Your task to perform on an android device: Go to Amazon Image 0: 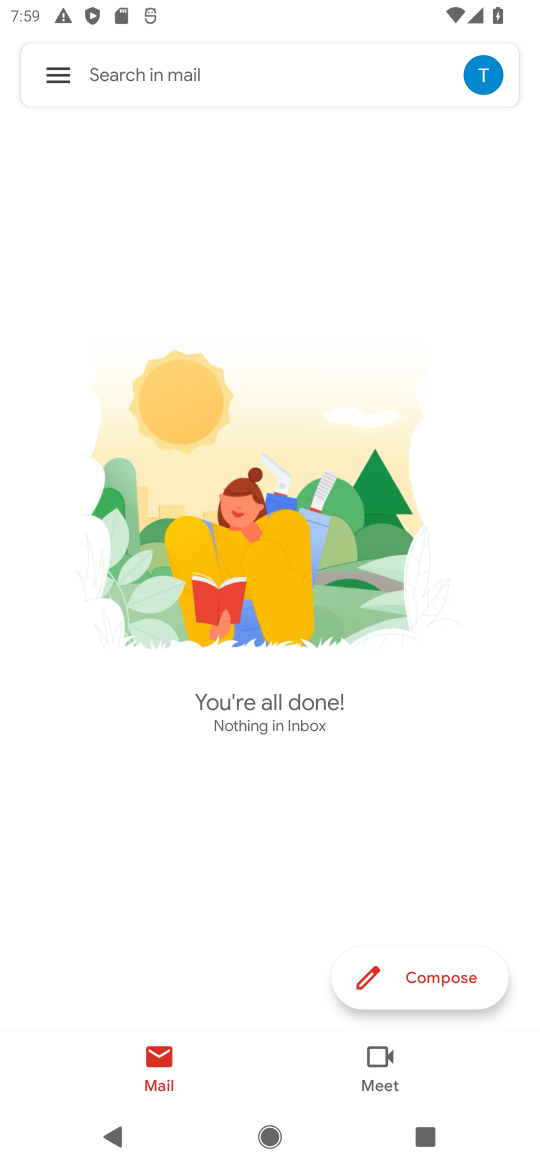
Step 0: press home button
Your task to perform on an android device: Go to Amazon Image 1: 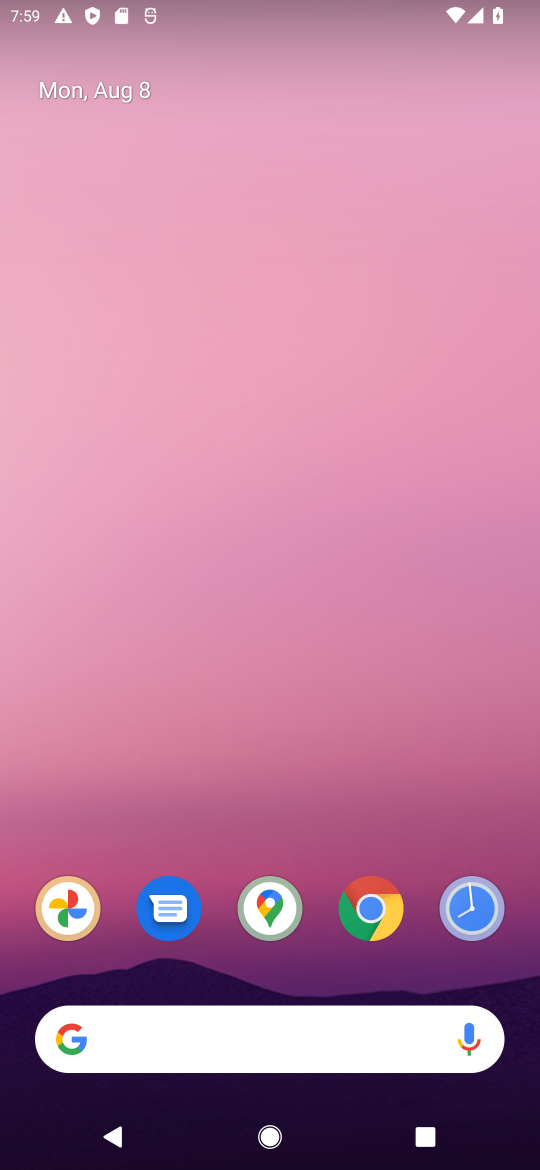
Step 1: click (367, 906)
Your task to perform on an android device: Go to Amazon Image 2: 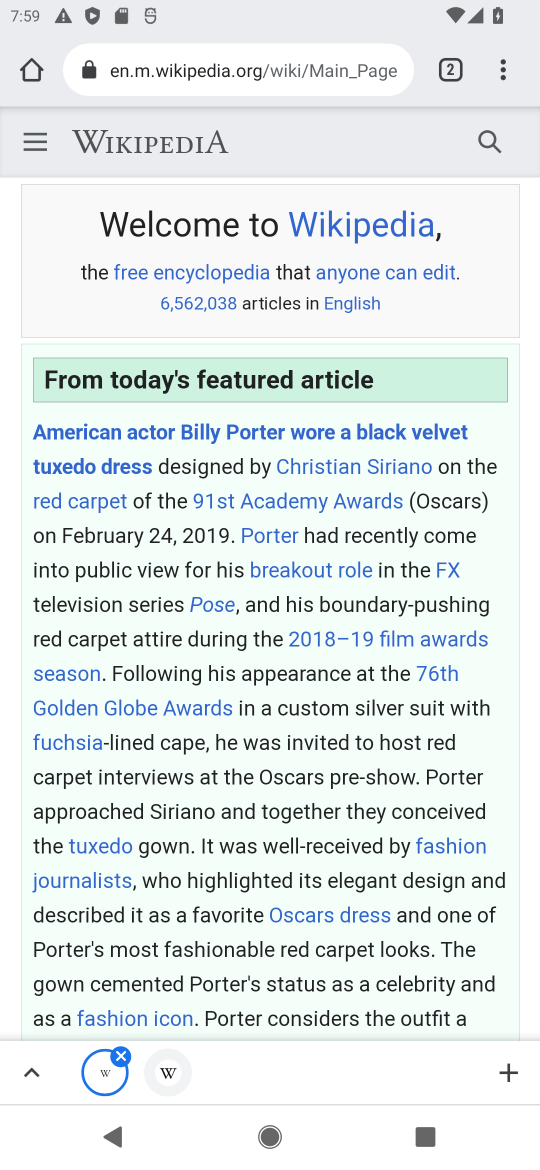
Step 2: click (41, 72)
Your task to perform on an android device: Go to Amazon Image 3: 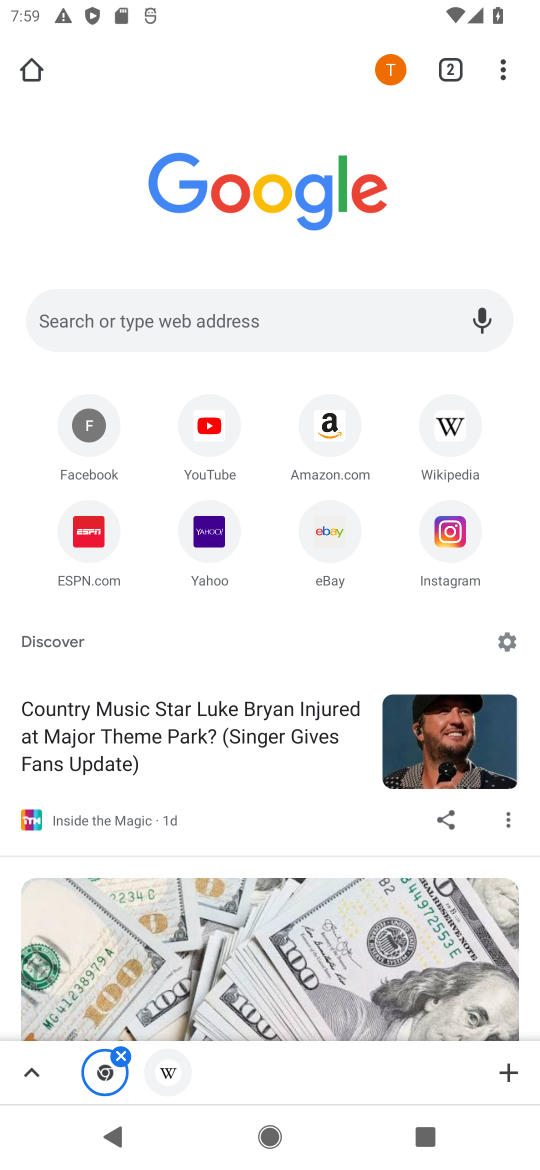
Step 3: click (339, 416)
Your task to perform on an android device: Go to Amazon Image 4: 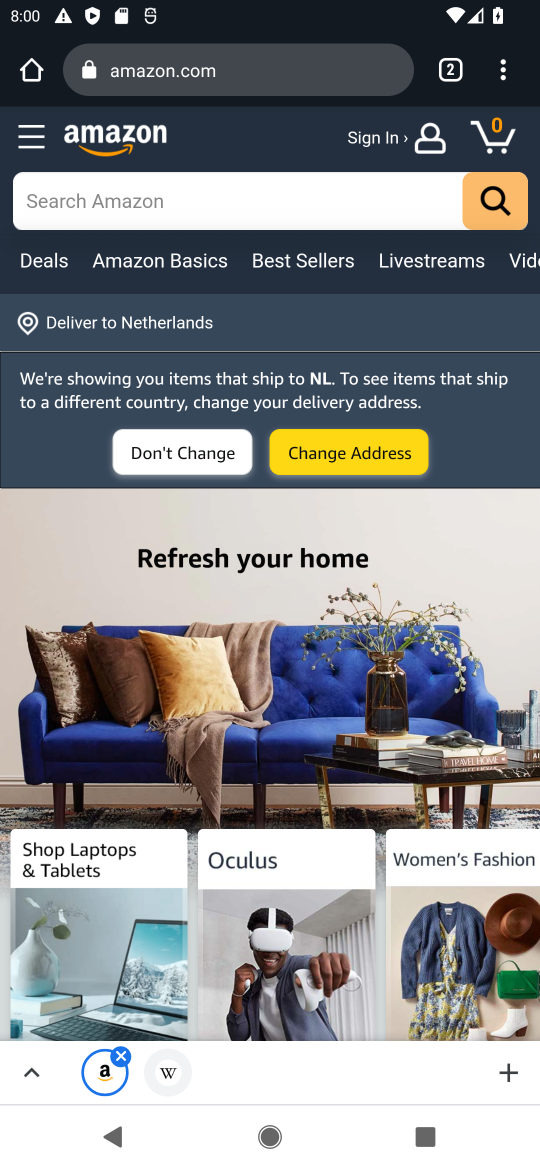
Step 4: task complete